Your task to perform on an android device: open a bookmark in the chrome app Image 0: 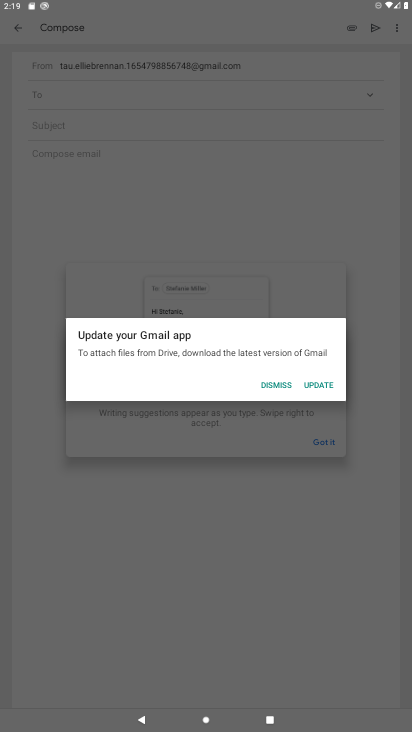
Step 0: press home button
Your task to perform on an android device: open a bookmark in the chrome app Image 1: 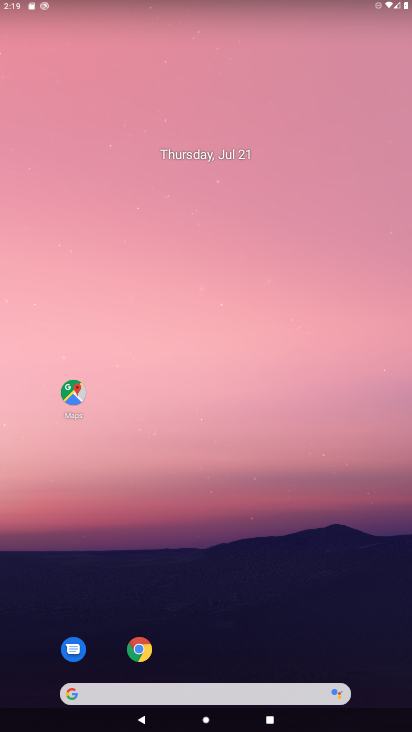
Step 1: drag from (340, 513) to (341, 49)
Your task to perform on an android device: open a bookmark in the chrome app Image 2: 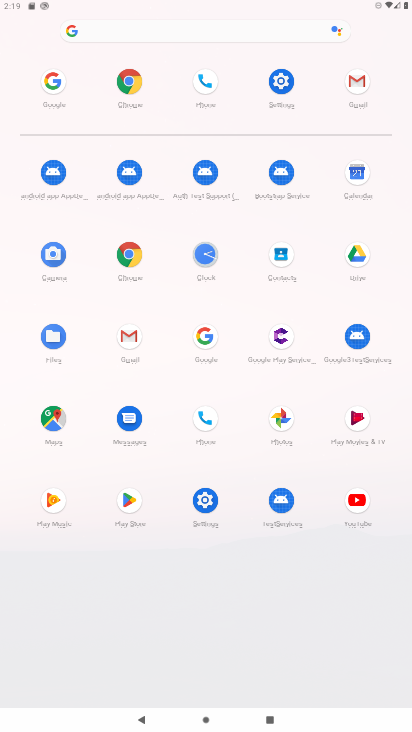
Step 2: click (126, 82)
Your task to perform on an android device: open a bookmark in the chrome app Image 3: 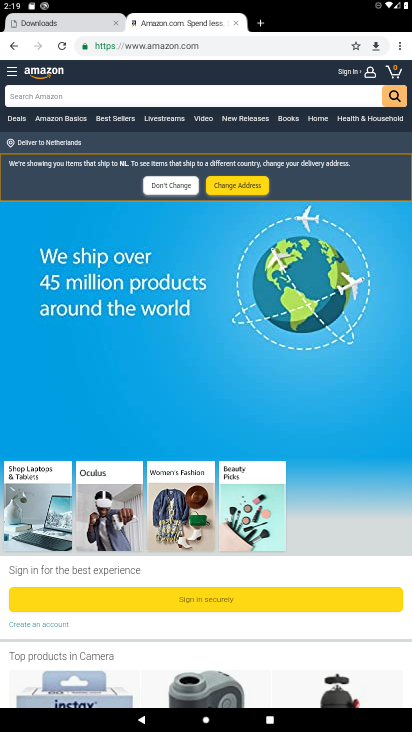
Step 3: drag from (398, 44) to (332, 82)
Your task to perform on an android device: open a bookmark in the chrome app Image 4: 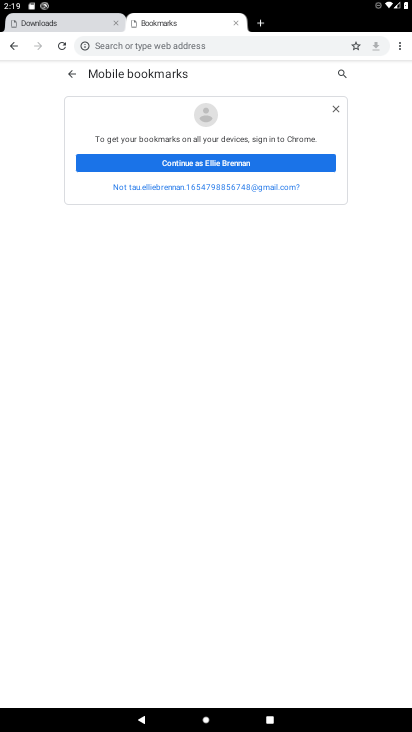
Step 4: click (247, 162)
Your task to perform on an android device: open a bookmark in the chrome app Image 5: 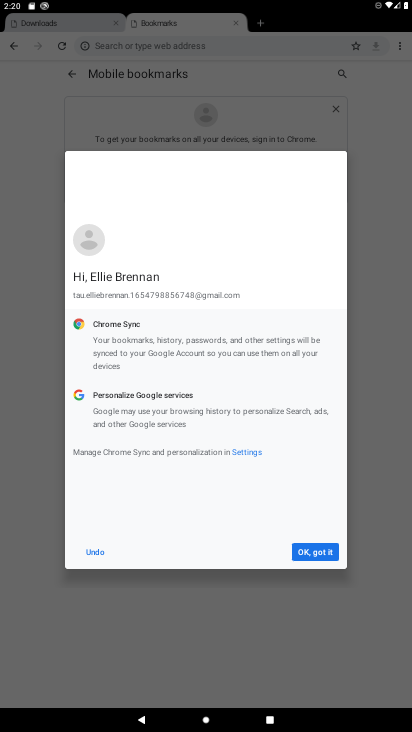
Step 5: click (310, 549)
Your task to perform on an android device: open a bookmark in the chrome app Image 6: 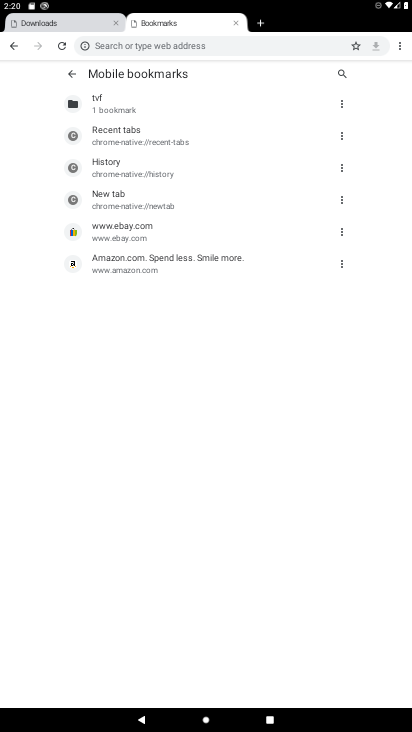
Step 6: task complete